Your task to perform on an android device: empty trash in google photos Image 0: 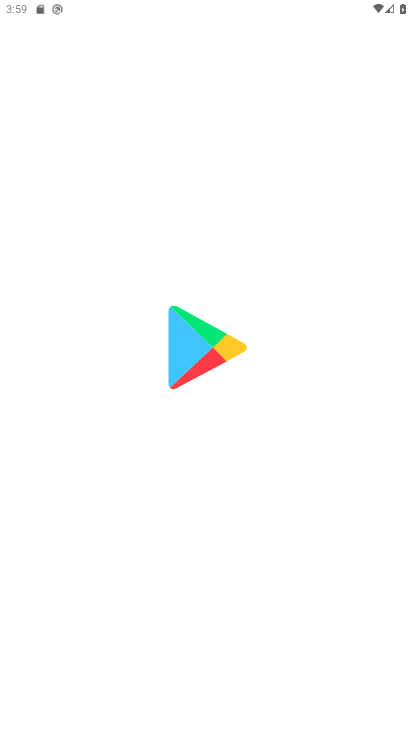
Step 0: drag from (181, 698) to (355, 131)
Your task to perform on an android device: empty trash in google photos Image 1: 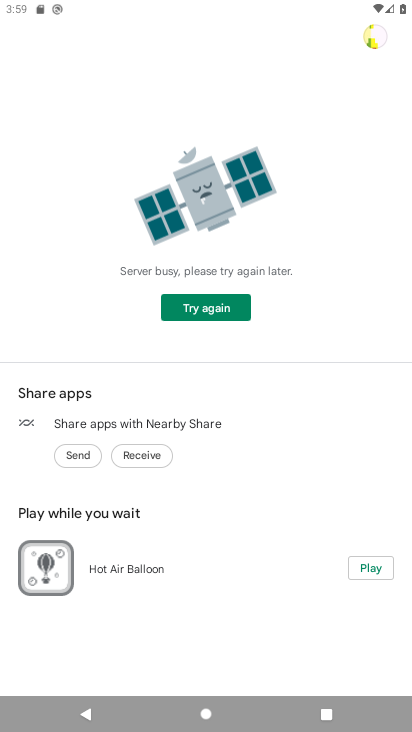
Step 1: press home button
Your task to perform on an android device: empty trash in google photos Image 2: 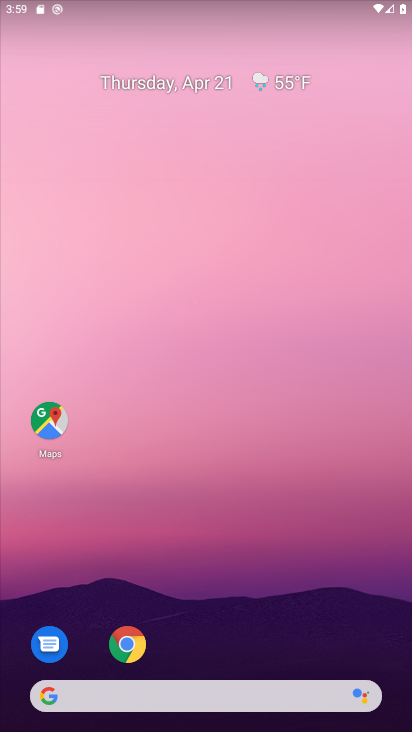
Step 2: drag from (167, 692) to (346, 136)
Your task to perform on an android device: empty trash in google photos Image 3: 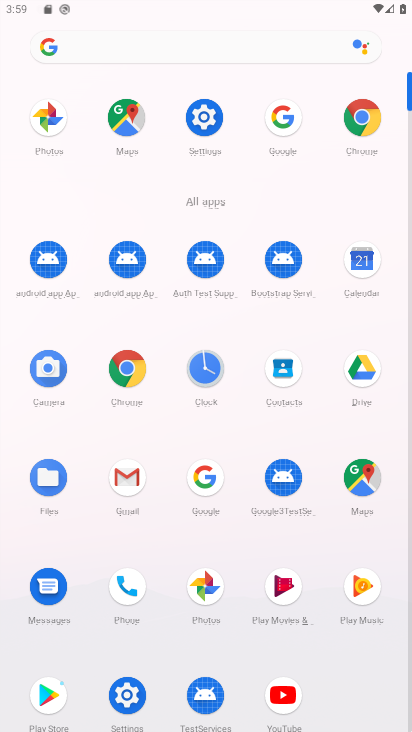
Step 3: click (192, 592)
Your task to perform on an android device: empty trash in google photos Image 4: 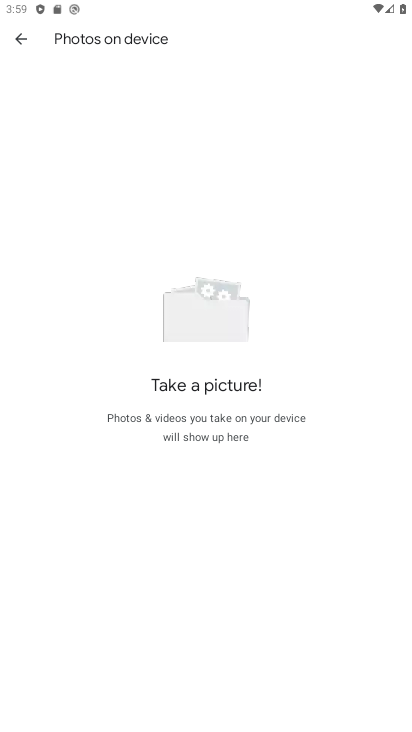
Step 4: click (24, 35)
Your task to perform on an android device: empty trash in google photos Image 5: 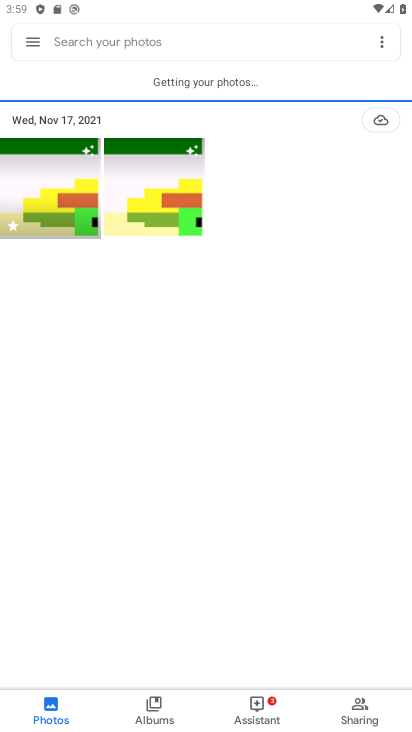
Step 5: click (28, 43)
Your task to perform on an android device: empty trash in google photos Image 6: 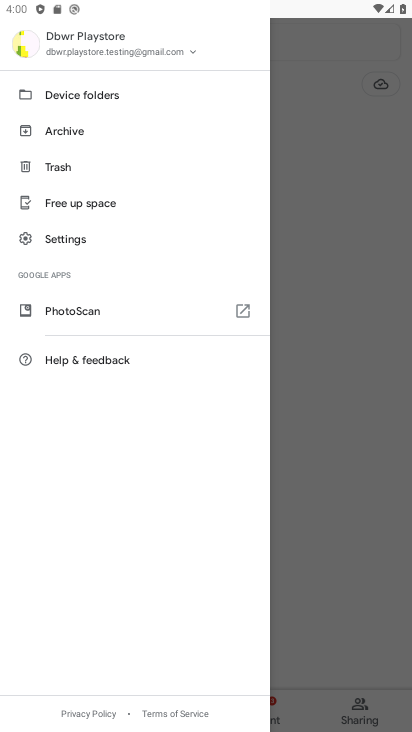
Step 6: click (67, 239)
Your task to perform on an android device: empty trash in google photos Image 7: 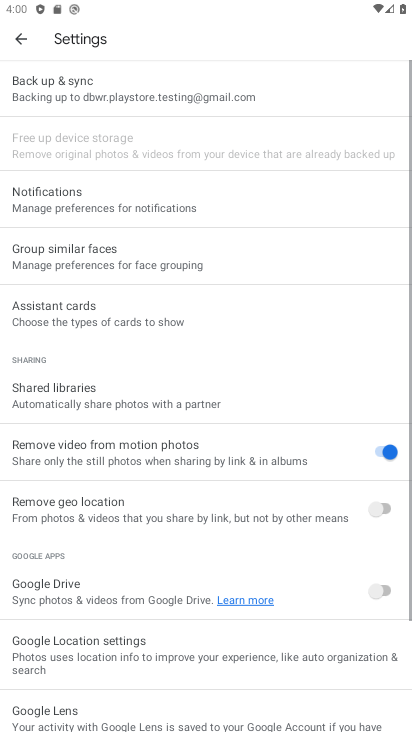
Step 7: click (14, 46)
Your task to perform on an android device: empty trash in google photos Image 8: 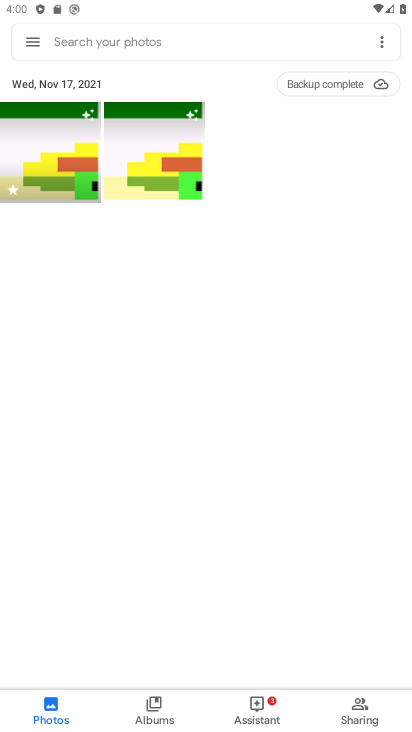
Step 8: click (30, 37)
Your task to perform on an android device: empty trash in google photos Image 9: 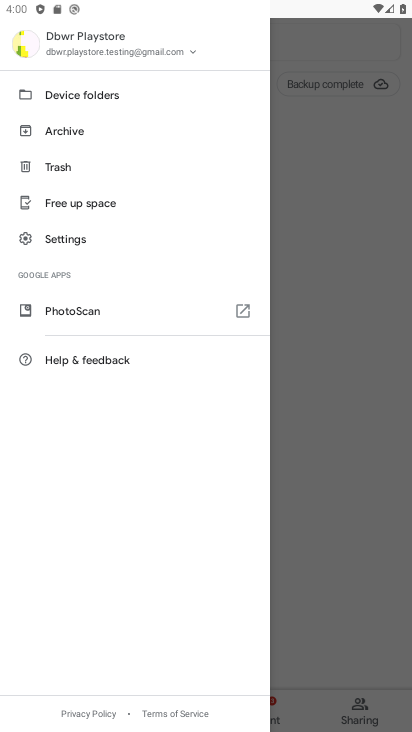
Step 9: click (72, 169)
Your task to perform on an android device: empty trash in google photos Image 10: 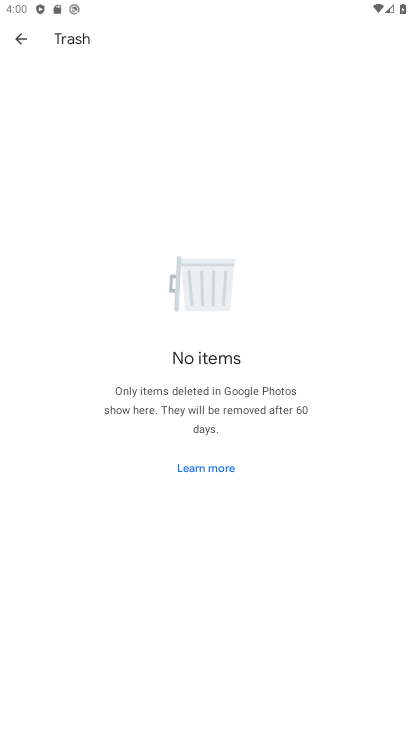
Step 10: task complete